Your task to perform on an android device: Go to privacy settings Image 0: 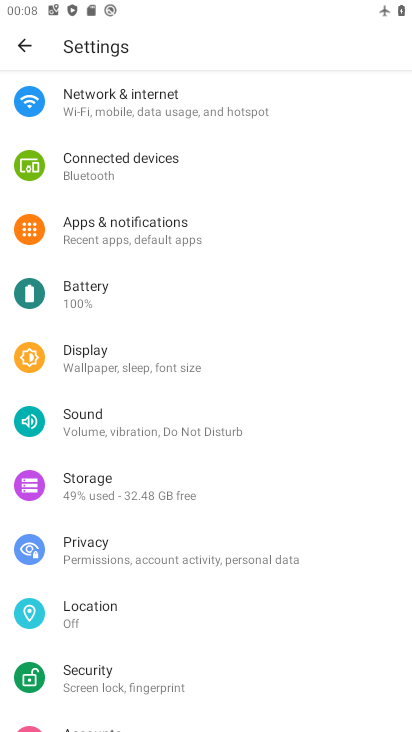
Step 0: press home button
Your task to perform on an android device: Go to privacy settings Image 1: 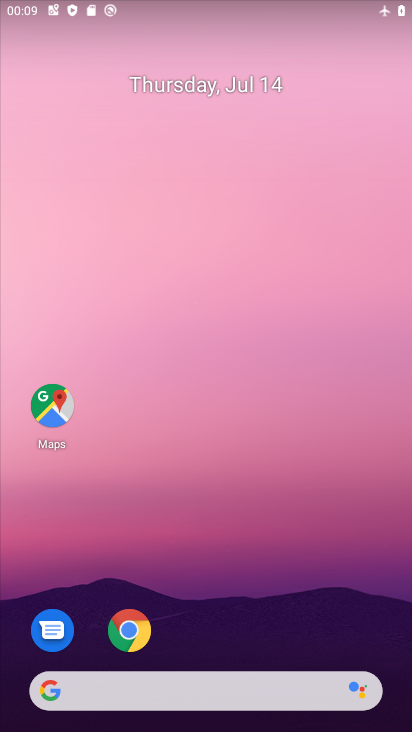
Step 1: drag from (344, 602) to (339, 82)
Your task to perform on an android device: Go to privacy settings Image 2: 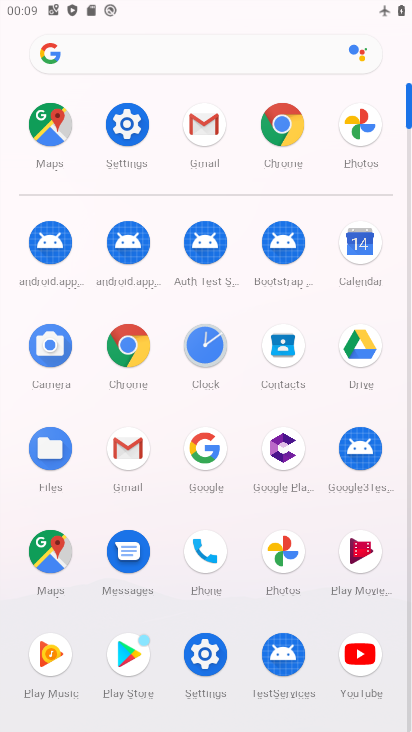
Step 2: click (135, 130)
Your task to perform on an android device: Go to privacy settings Image 3: 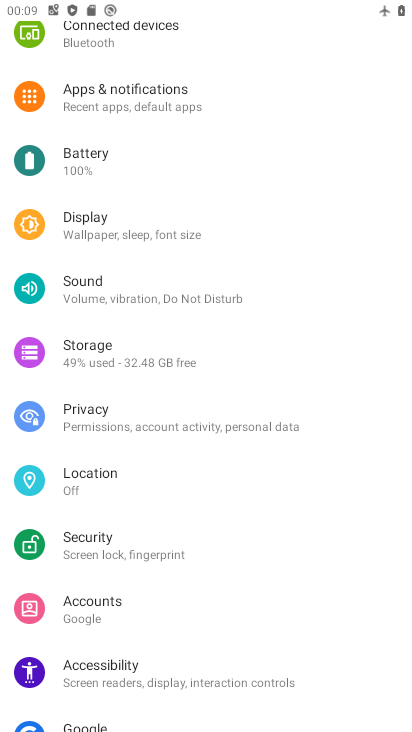
Step 3: drag from (337, 515) to (334, 365)
Your task to perform on an android device: Go to privacy settings Image 4: 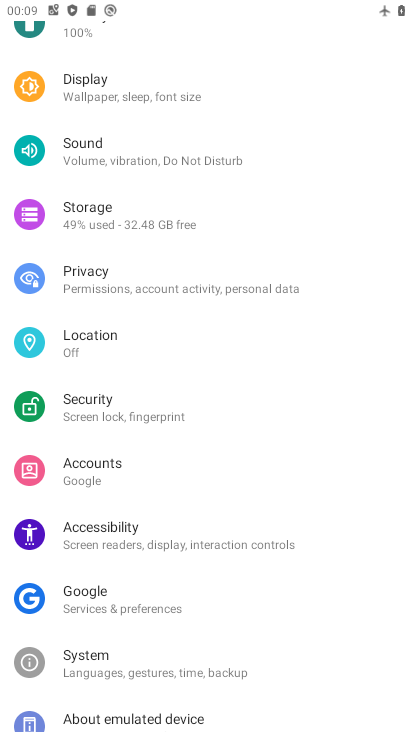
Step 4: drag from (347, 498) to (348, 352)
Your task to perform on an android device: Go to privacy settings Image 5: 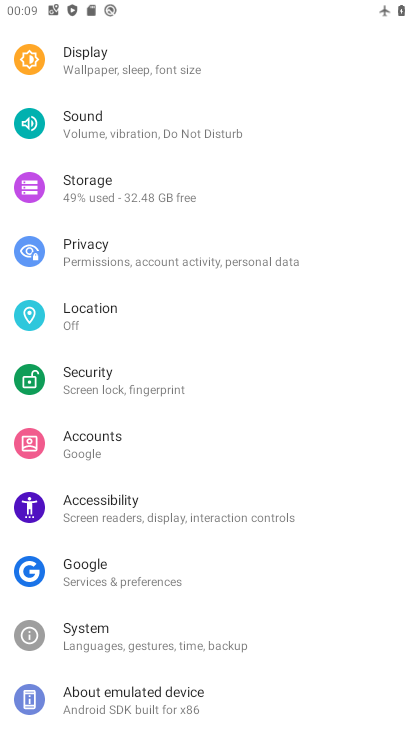
Step 5: drag from (367, 281) to (381, 390)
Your task to perform on an android device: Go to privacy settings Image 6: 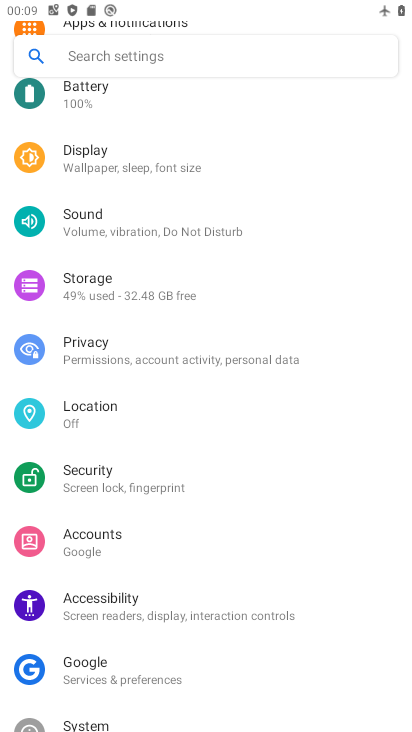
Step 6: drag from (366, 273) to (375, 441)
Your task to perform on an android device: Go to privacy settings Image 7: 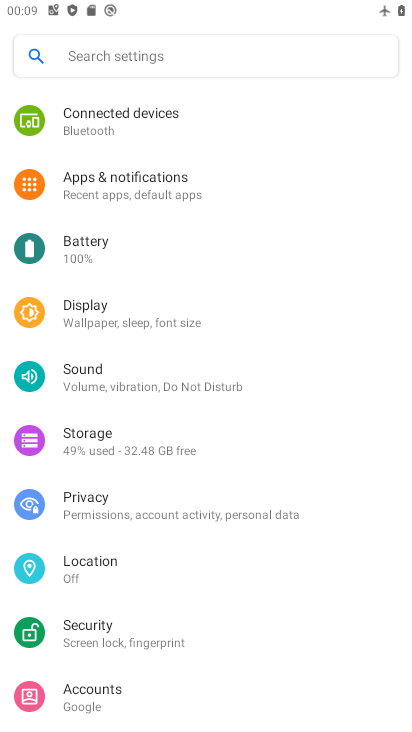
Step 7: drag from (366, 265) to (365, 380)
Your task to perform on an android device: Go to privacy settings Image 8: 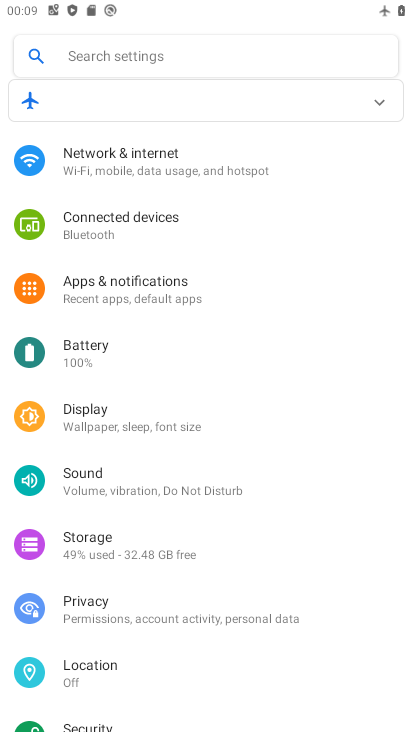
Step 8: drag from (351, 265) to (357, 414)
Your task to perform on an android device: Go to privacy settings Image 9: 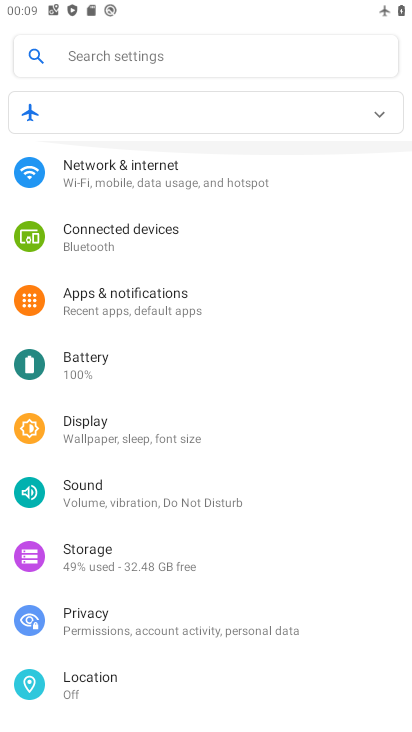
Step 9: drag from (357, 460) to (355, 358)
Your task to perform on an android device: Go to privacy settings Image 10: 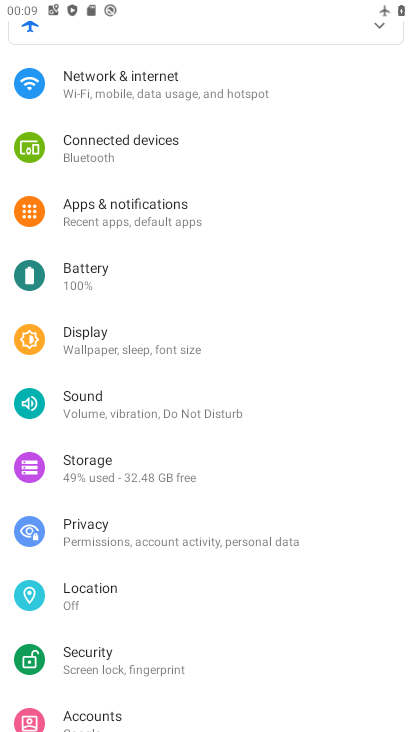
Step 10: drag from (342, 461) to (334, 351)
Your task to perform on an android device: Go to privacy settings Image 11: 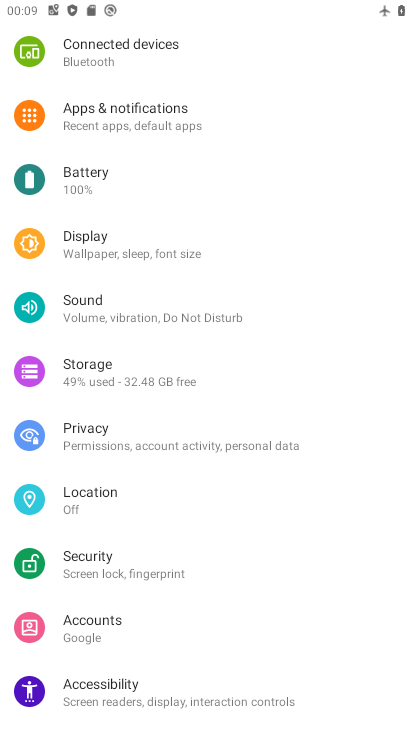
Step 11: drag from (336, 494) to (337, 401)
Your task to perform on an android device: Go to privacy settings Image 12: 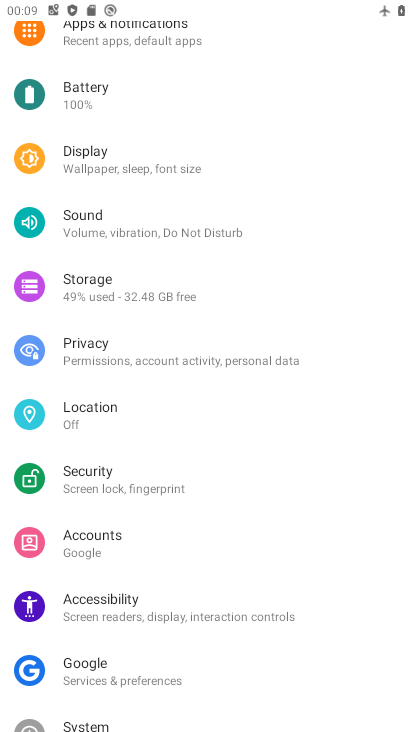
Step 12: drag from (337, 483) to (345, 293)
Your task to perform on an android device: Go to privacy settings Image 13: 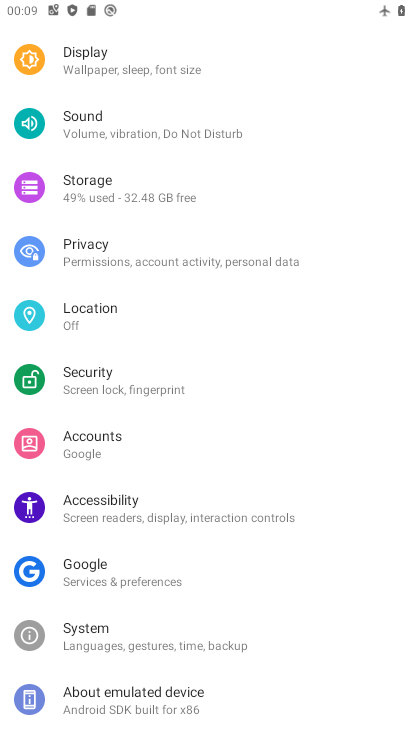
Step 13: click (187, 247)
Your task to perform on an android device: Go to privacy settings Image 14: 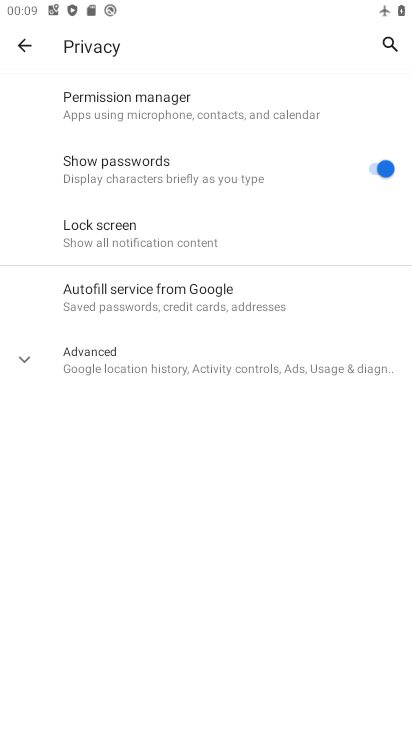
Step 14: task complete